Your task to perform on an android device: When is my next appointment? Image 0: 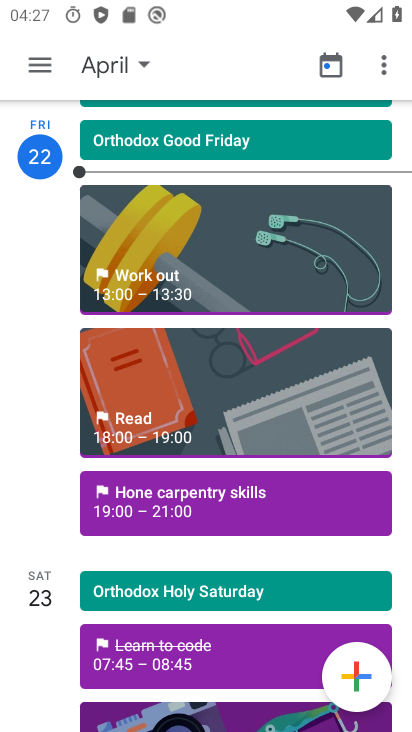
Step 0: click (186, 507)
Your task to perform on an android device: When is my next appointment? Image 1: 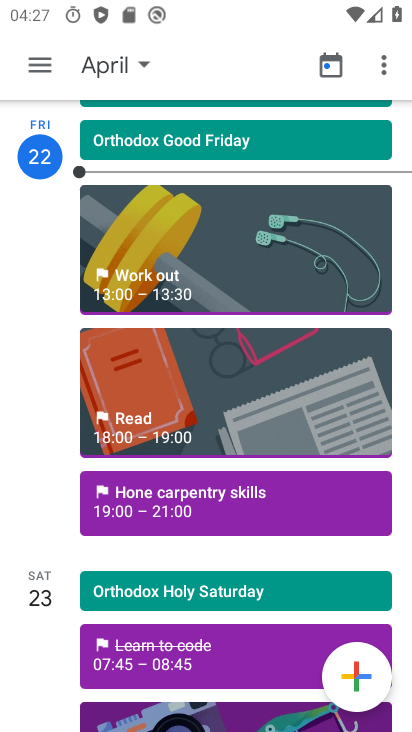
Step 1: click (128, 502)
Your task to perform on an android device: When is my next appointment? Image 2: 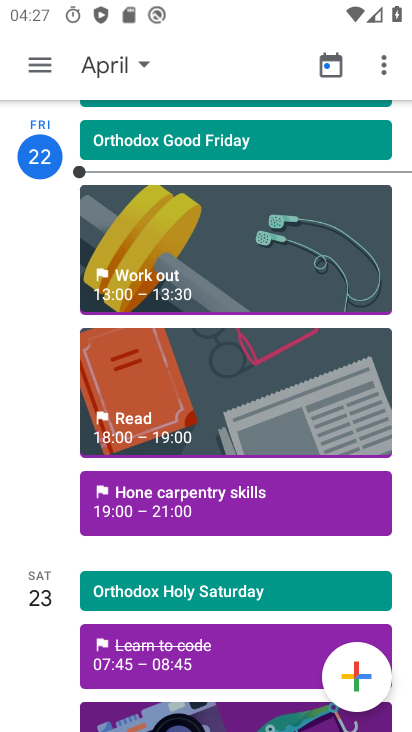
Step 2: click (240, 500)
Your task to perform on an android device: When is my next appointment? Image 3: 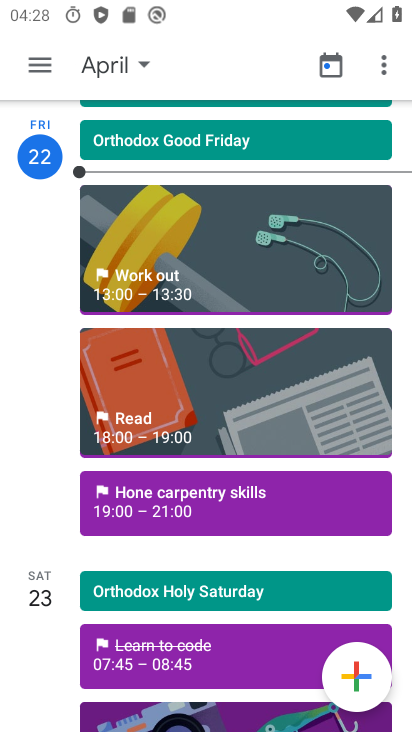
Step 3: click (312, 503)
Your task to perform on an android device: When is my next appointment? Image 4: 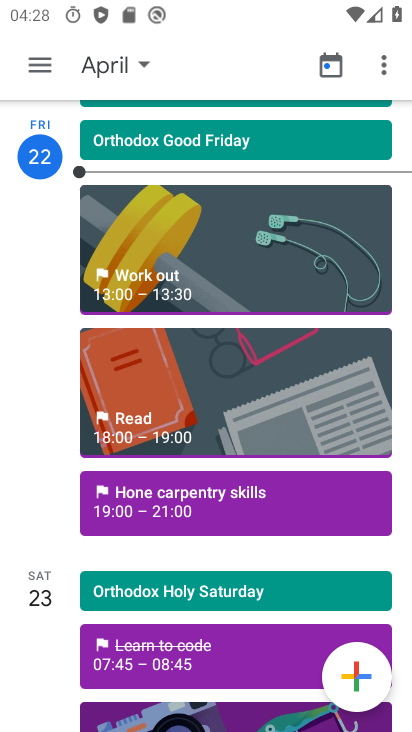
Step 4: click (211, 500)
Your task to perform on an android device: When is my next appointment? Image 5: 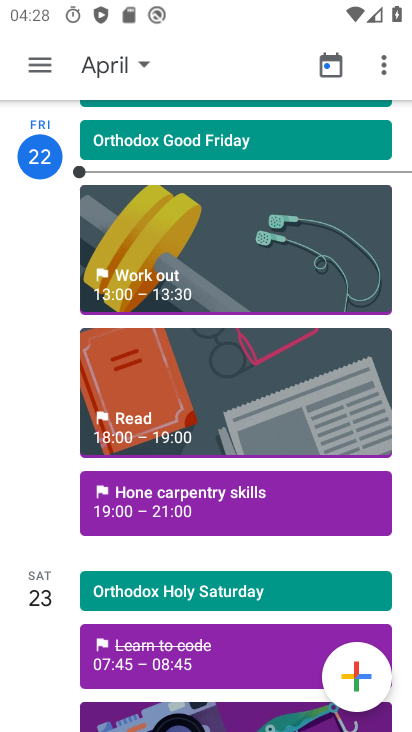
Step 5: click (206, 497)
Your task to perform on an android device: When is my next appointment? Image 6: 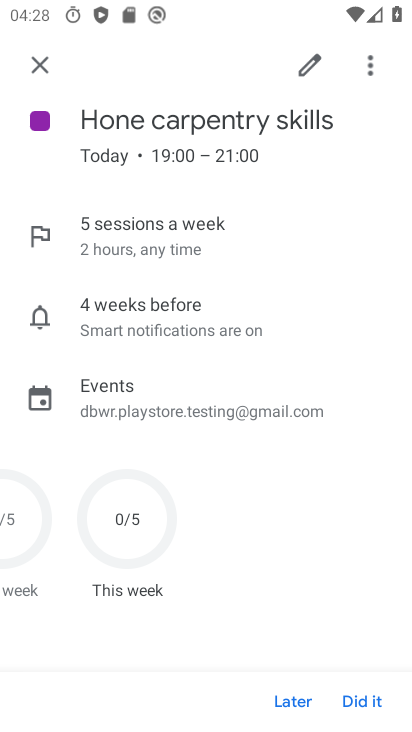
Step 6: task complete